Your task to perform on an android device: turn off data saver in the chrome app Image 0: 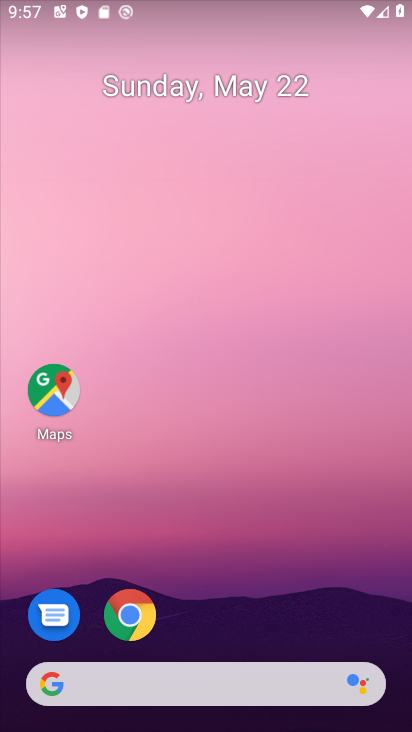
Step 0: click (138, 626)
Your task to perform on an android device: turn off data saver in the chrome app Image 1: 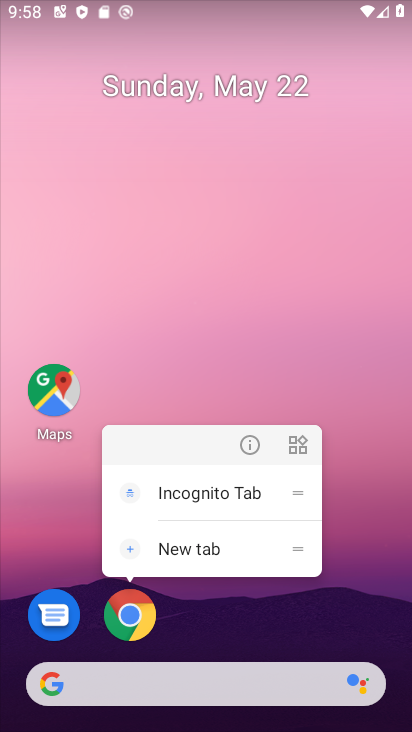
Step 1: click (123, 617)
Your task to perform on an android device: turn off data saver in the chrome app Image 2: 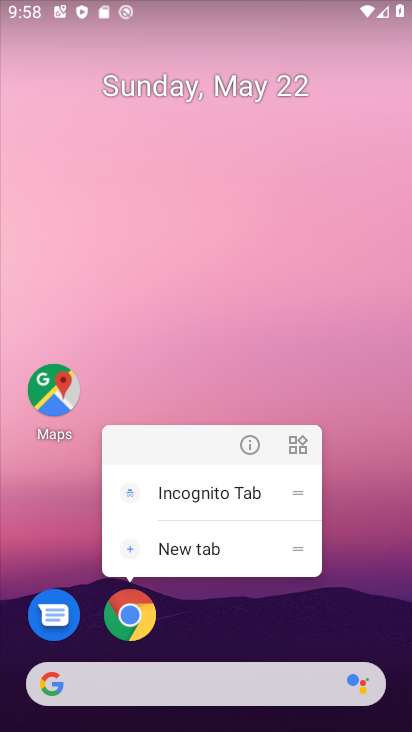
Step 2: click (123, 609)
Your task to perform on an android device: turn off data saver in the chrome app Image 3: 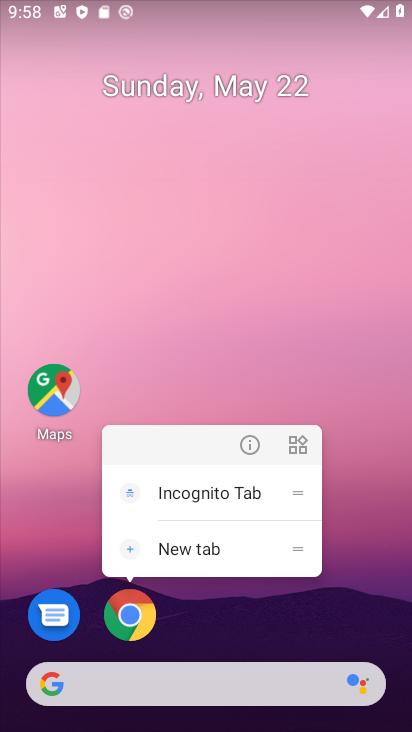
Step 3: click (398, 555)
Your task to perform on an android device: turn off data saver in the chrome app Image 4: 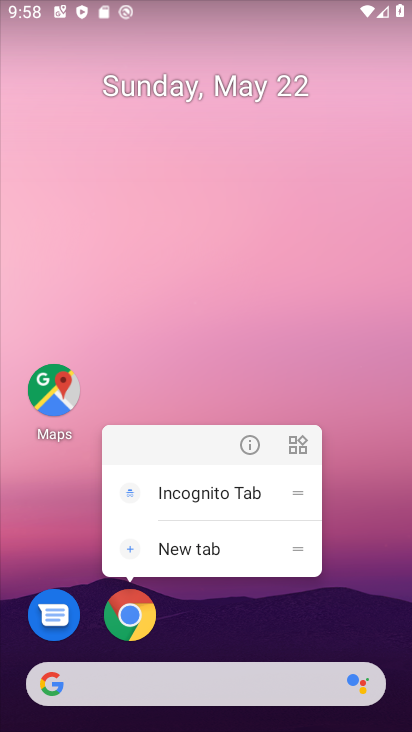
Step 4: drag from (347, 585) to (390, 128)
Your task to perform on an android device: turn off data saver in the chrome app Image 5: 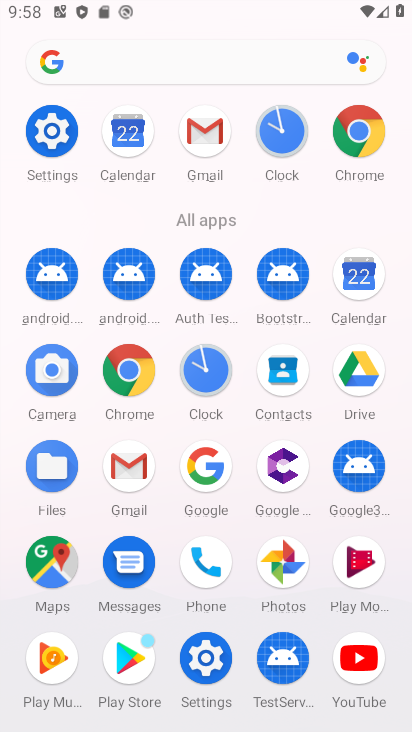
Step 5: click (369, 126)
Your task to perform on an android device: turn off data saver in the chrome app Image 6: 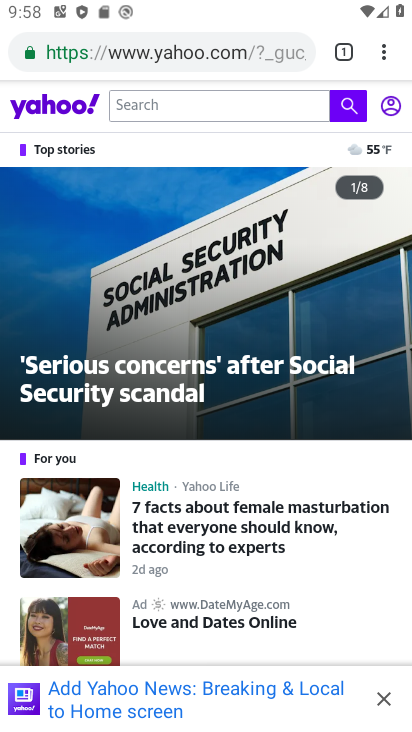
Step 6: drag from (381, 52) to (218, 586)
Your task to perform on an android device: turn off data saver in the chrome app Image 7: 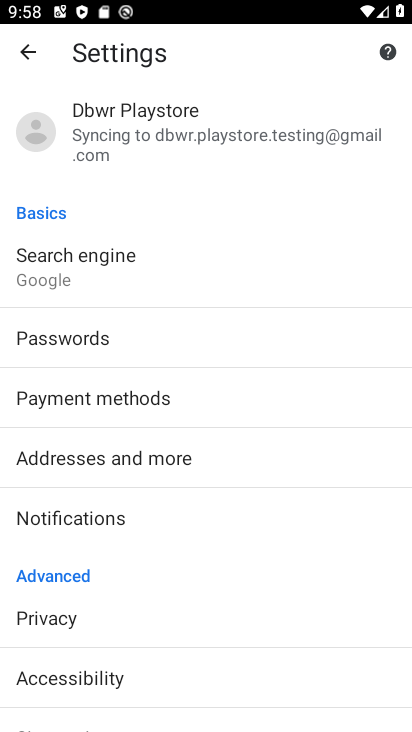
Step 7: drag from (176, 630) to (214, 142)
Your task to perform on an android device: turn off data saver in the chrome app Image 8: 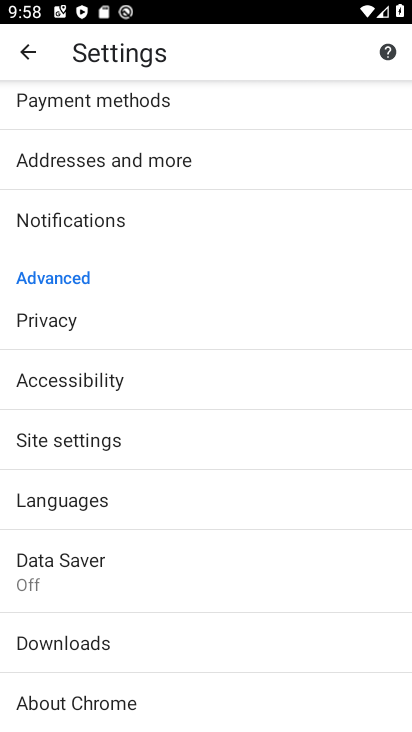
Step 8: click (112, 570)
Your task to perform on an android device: turn off data saver in the chrome app Image 9: 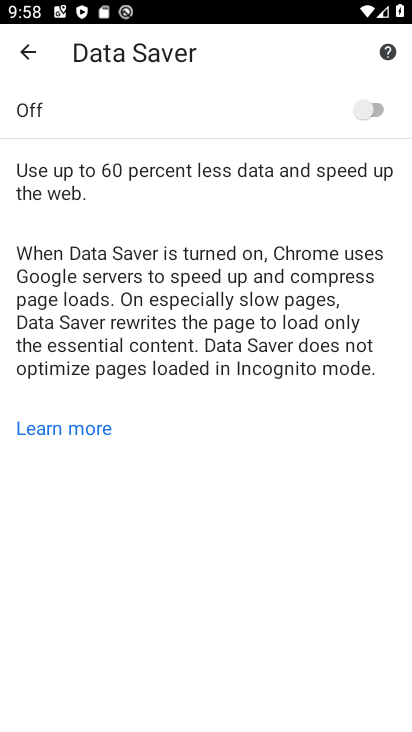
Step 9: task complete